Your task to perform on an android device: Open Amazon Image 0: 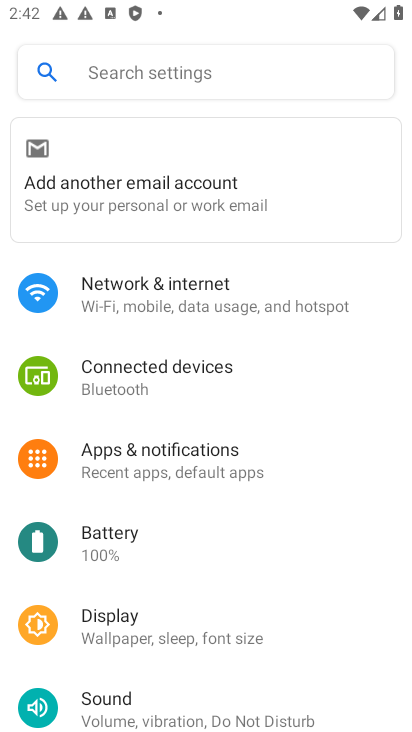
Step 0: press home button
Your task to perform on an android device: Open Amazon Image 1: 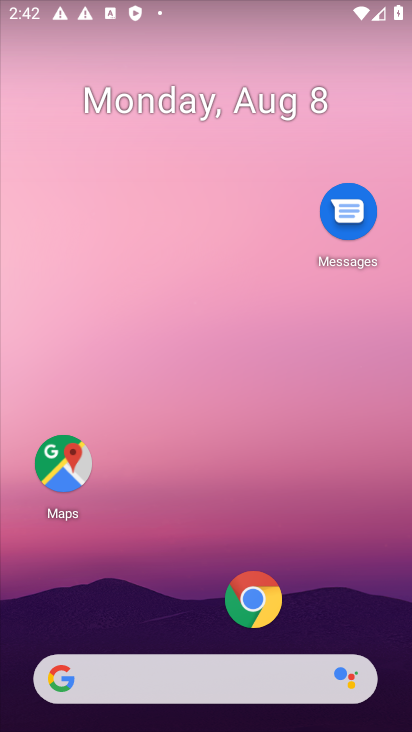
Step 1: click (191, 595)
Your task to perform on an android device: Open Amazon Image 2: 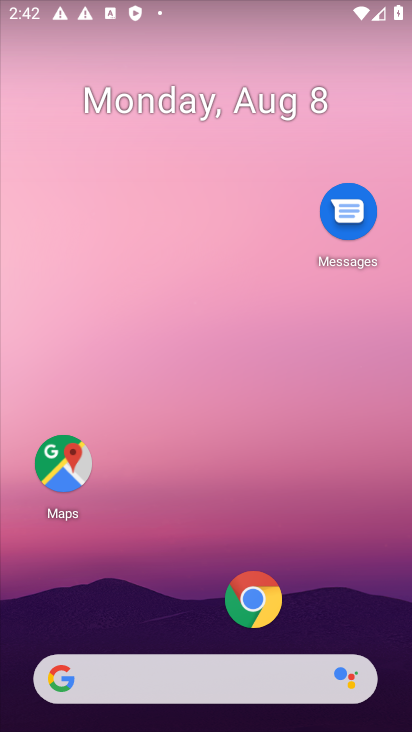
Step 2: click (249, 600)
Your task to perform on an android device: Open Amazon Image 3: 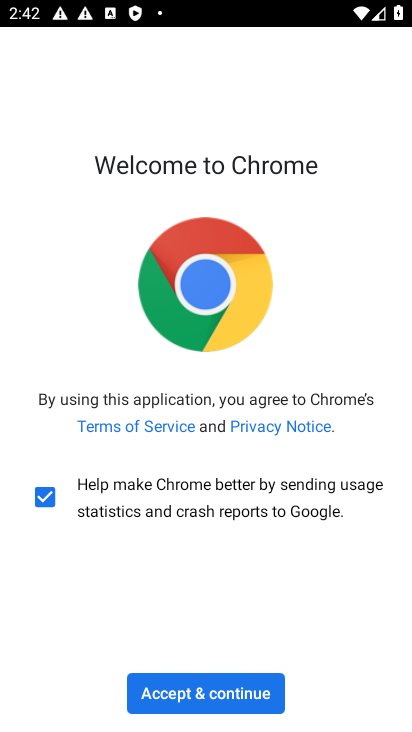
Step 3: click (205, 691)
Your task to perform on an android device: Open Amazon Image 4: 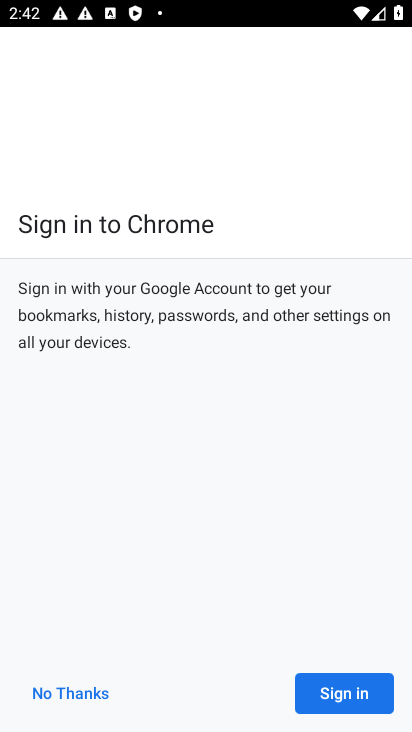
Step 4: click (66, 693)
Your task to perform on an android device: Open Amazon Image 5: 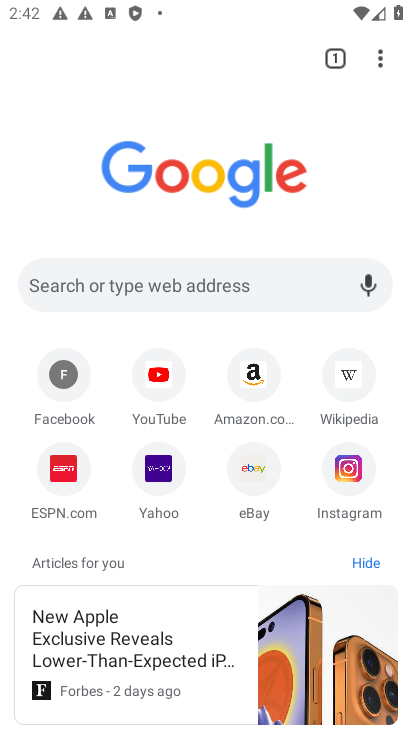
Step 5: click (243, 367)
Your task to perform on an android device: Open Amazon Image 6: 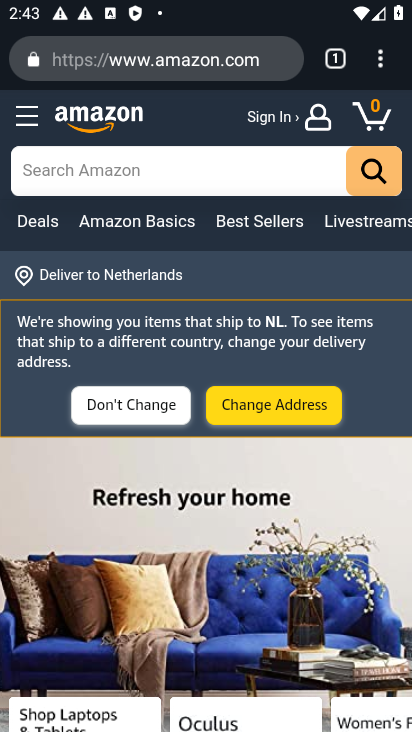
Step 6: task complete